Your task to perform on an android device: Do I have any events today? Image 0: 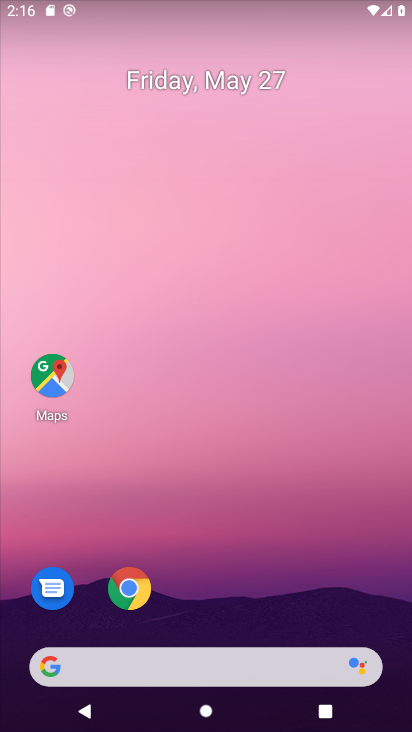
Step 0: drag from (220, 611) to (228, 69)
Your task to perform on an android device: Do I have any events today? Image 1: 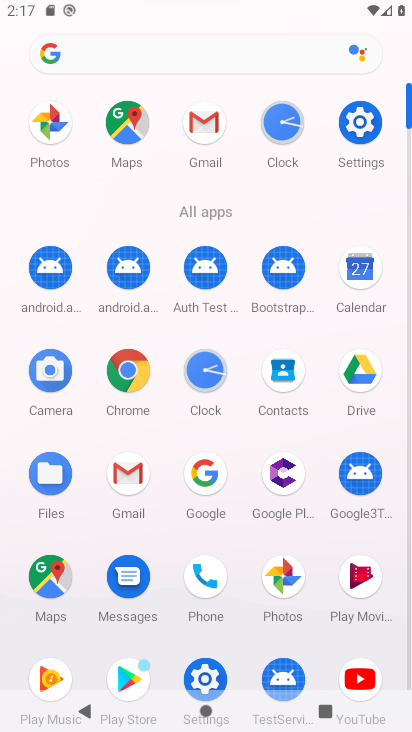
Step 1: click (353, 283)
Your task to perform on an android device: Do I have any events today? Image 2: 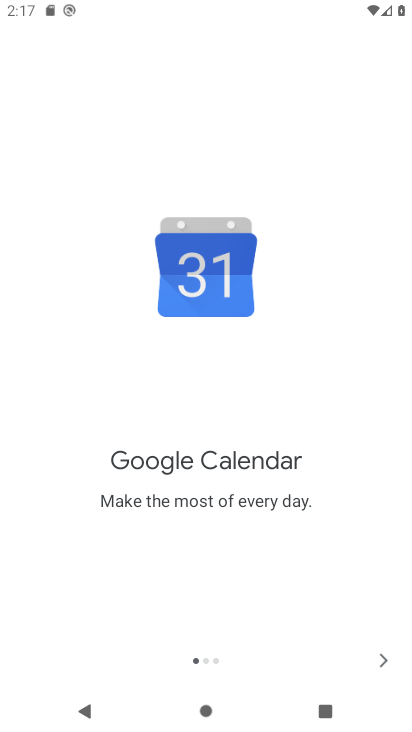
Step 2: click (382, 664)
Your task to perform on an android device: Do I have any events today? Image 3: 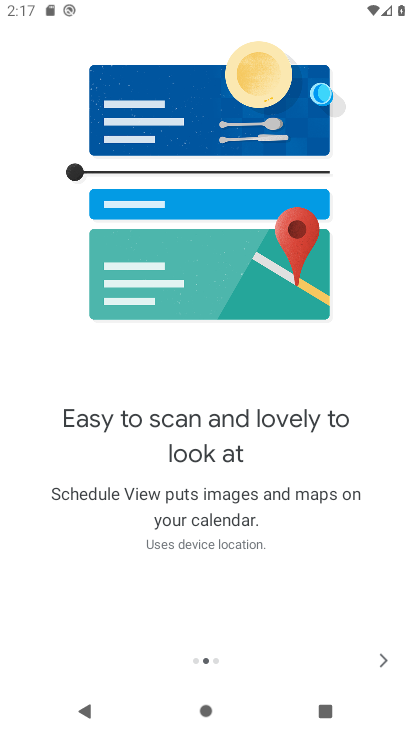
Step 3: click (382, 662)
Your task to perform on an android device: Do I have any events today? Image 4: 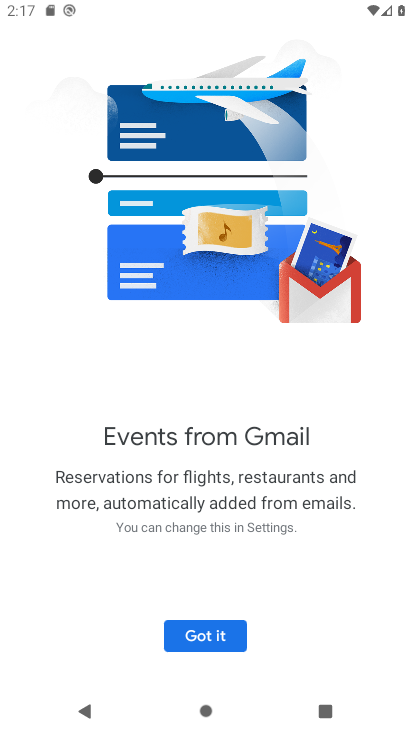
Step 4: click (213, 630)
Your task to perform on an android device: Do I have any events today? Image 5: 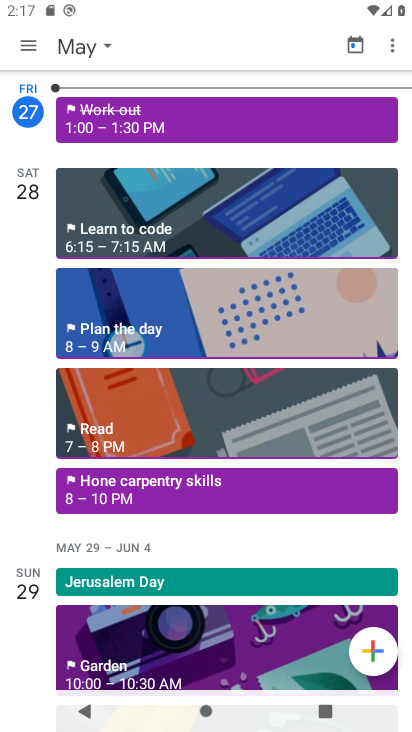
Step 5: click (92, 47)
Your task to perform on an android device: Do I have any events today? Image 6: 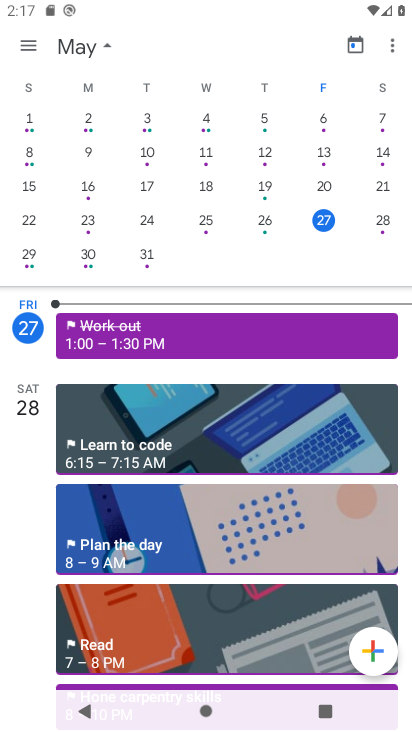
Step 6: click (330, 216)
Your task to perform on an android device: Do I have any events today? Image 7: 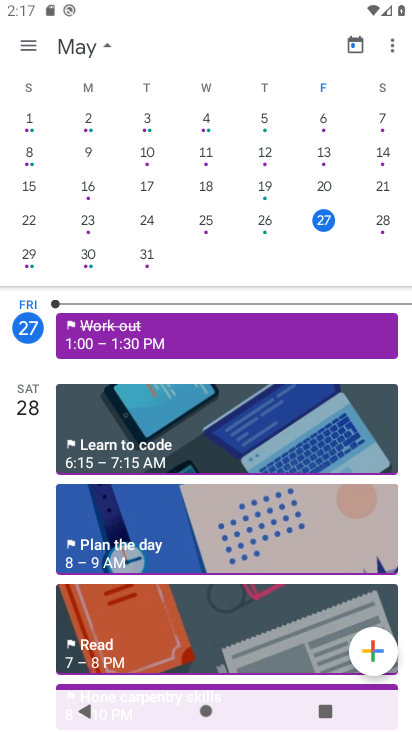
Step 7: task complete